Your task to perform on an android device: Go to eBay Image 0: 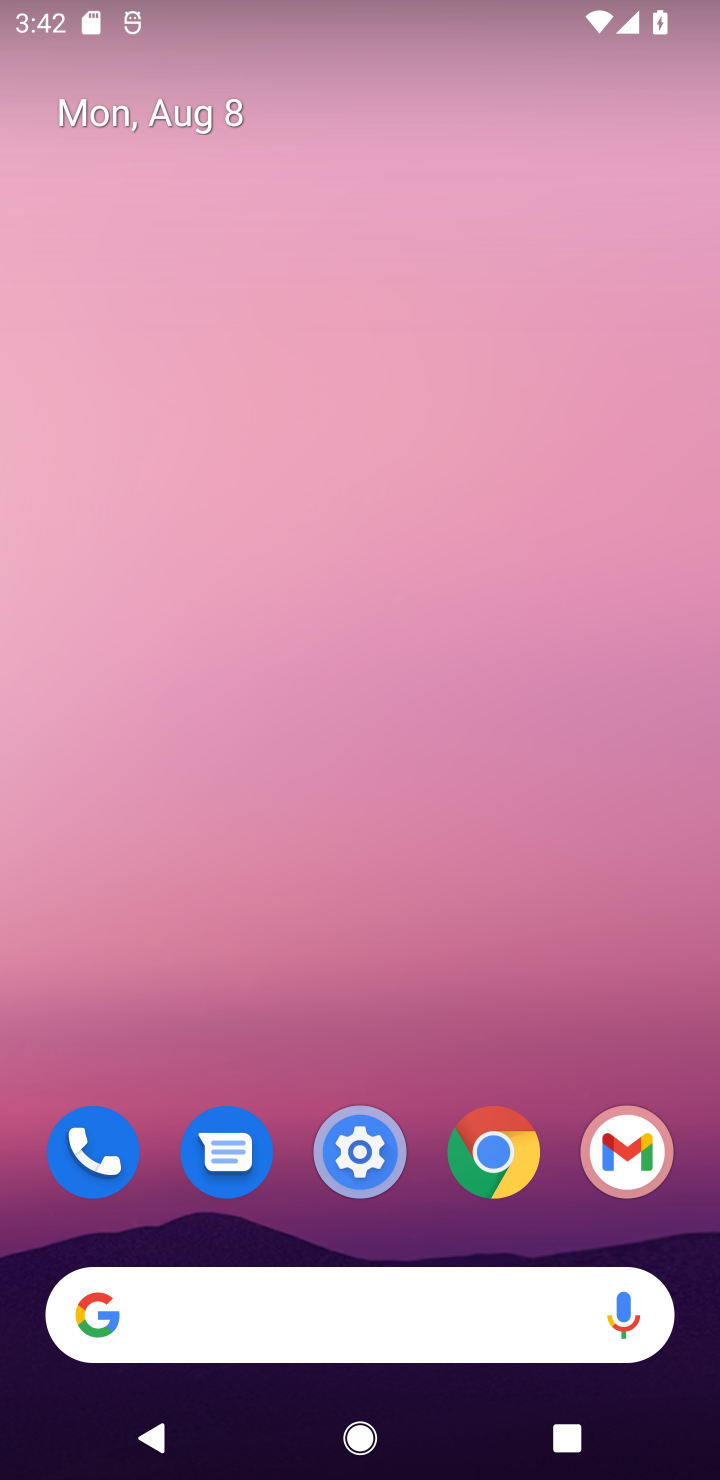
Step 0: click (474, 1141)
Your task to perform on an android device: Go to eBay Image 1: 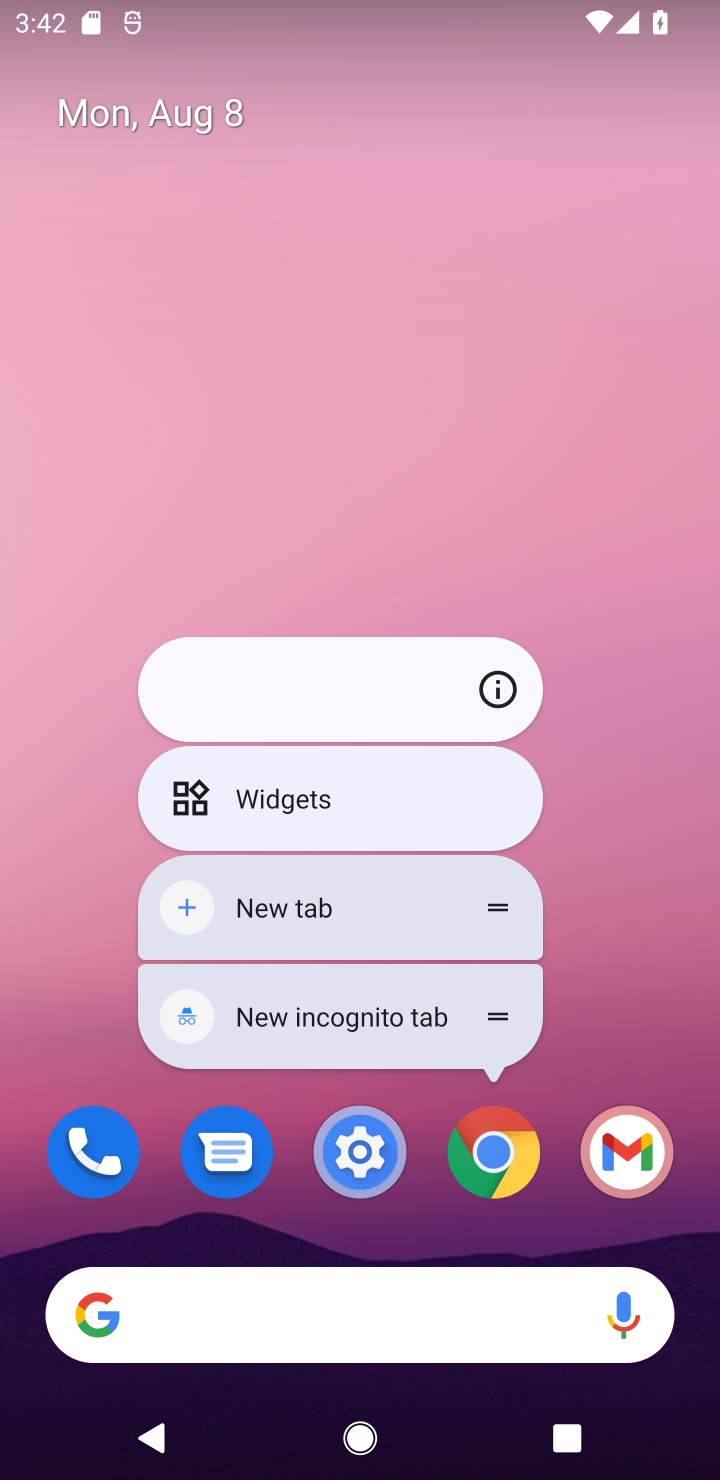
Step 1: click (489, 1166)
Your task to perform on an android device: Go to eBay Image 2: 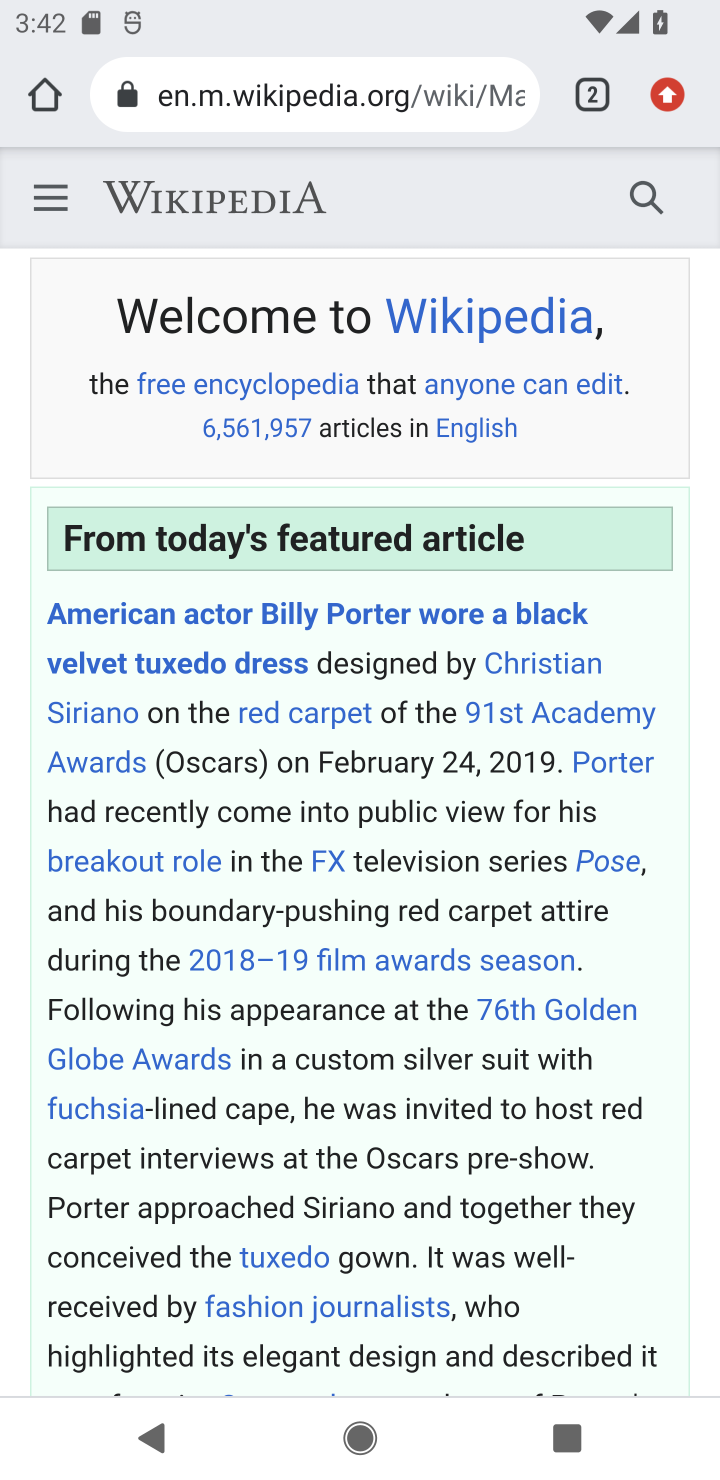
Step 2: click (594, 100)
Your task to perform on an android device: Go to eBay Image 3: 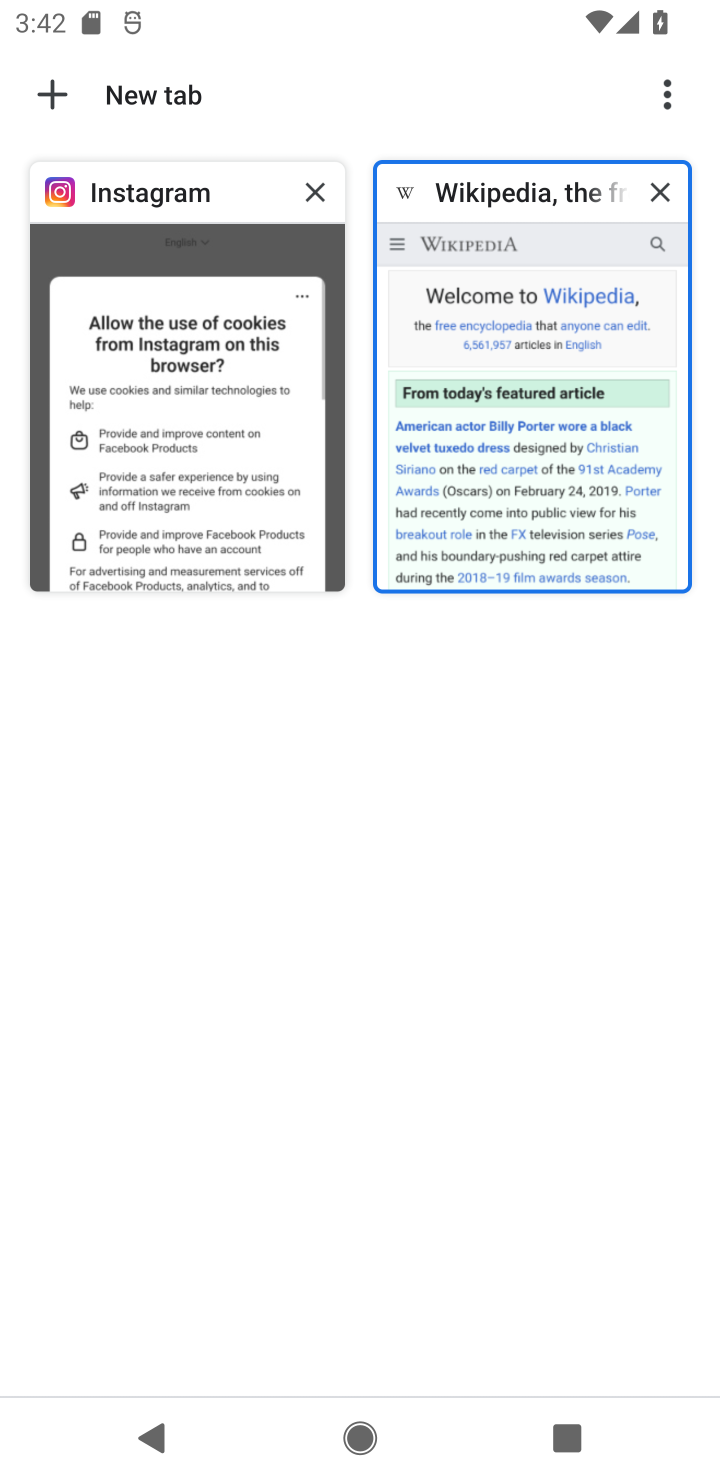
Step 3: click (37, 78)
Your task to perform on an android device: Go to eBay Image 4: 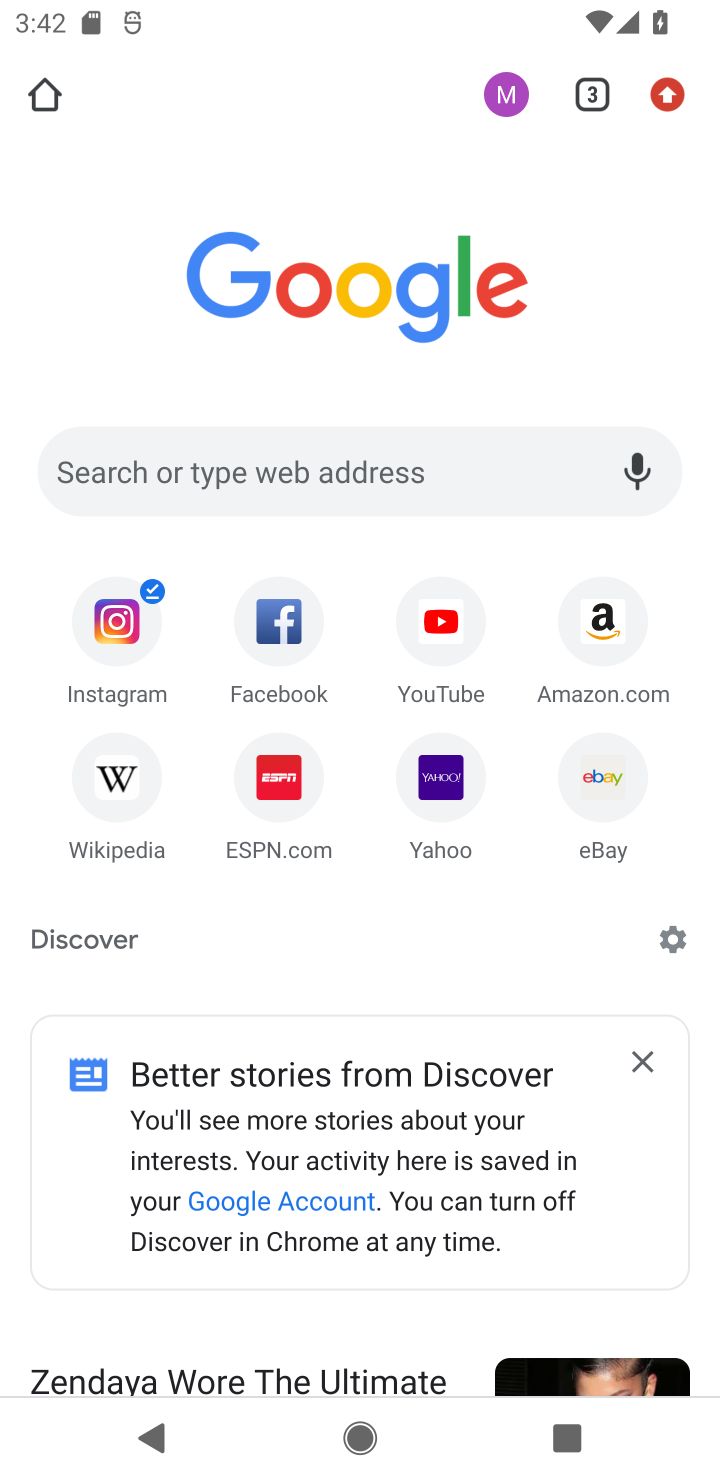
Step 4: click (595, 767)
Your task to perform on an android device: Go to eBay Image 5: 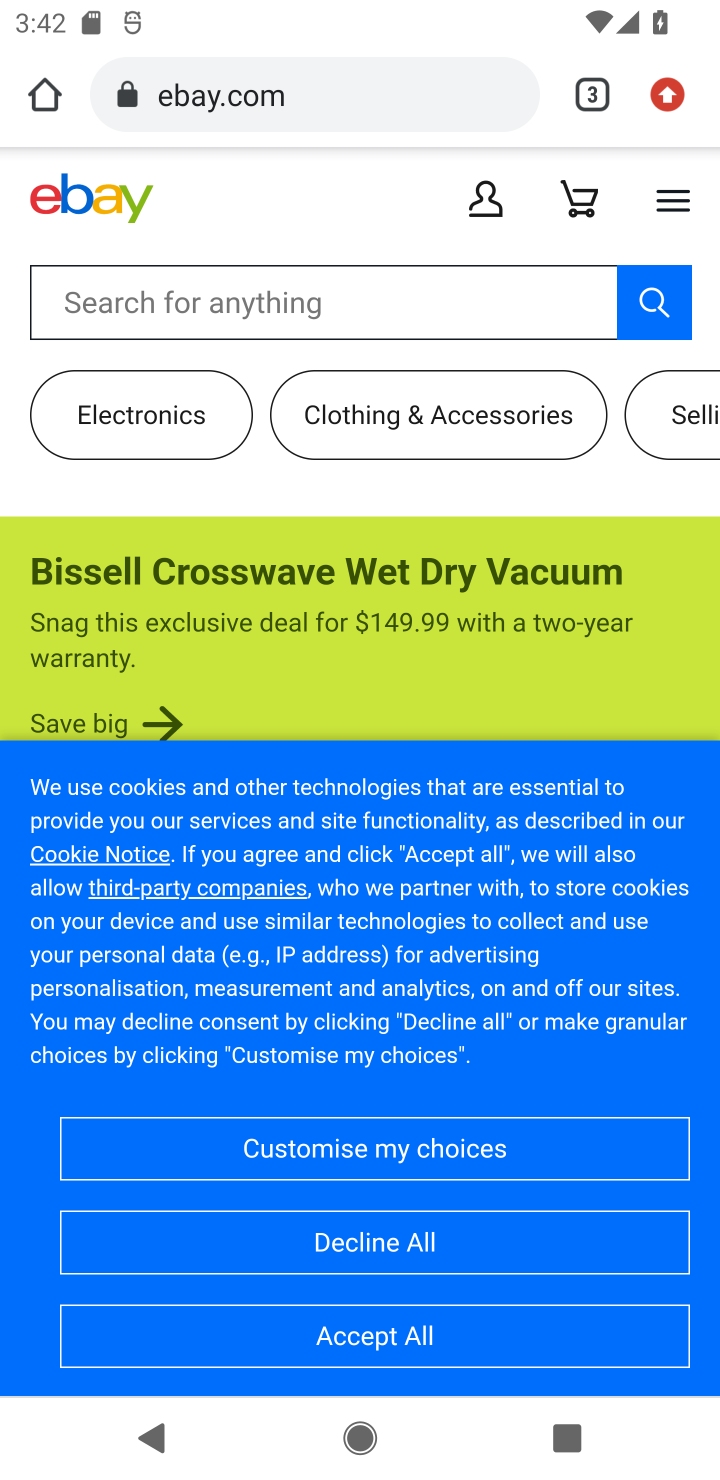
Step 5: task complete